Your task to perform on an android device: change keyboard looks Image 0: 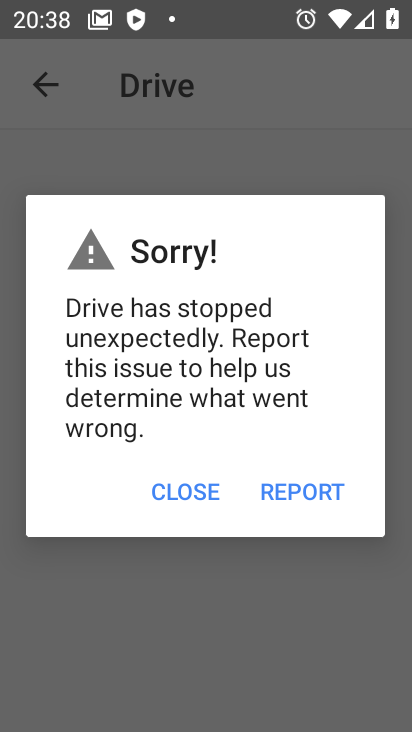
Step 0: press home button
Your task to perform on an android device: change keyboard looks Image 1: 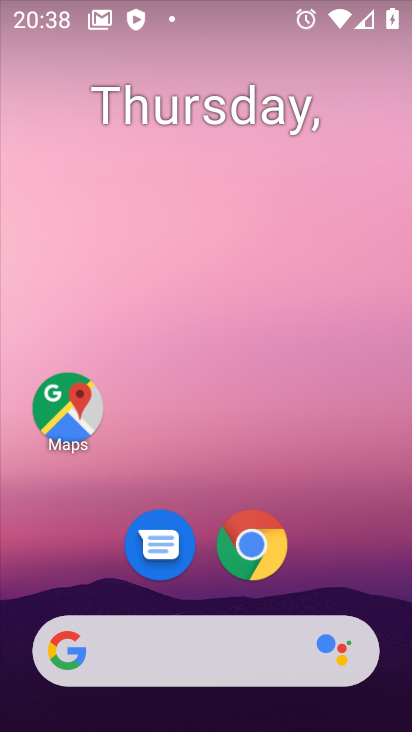
Step 1: drag from (197, 490) to (219, 41)
Your task to perform on an android device: change keyboard looks Image 2: 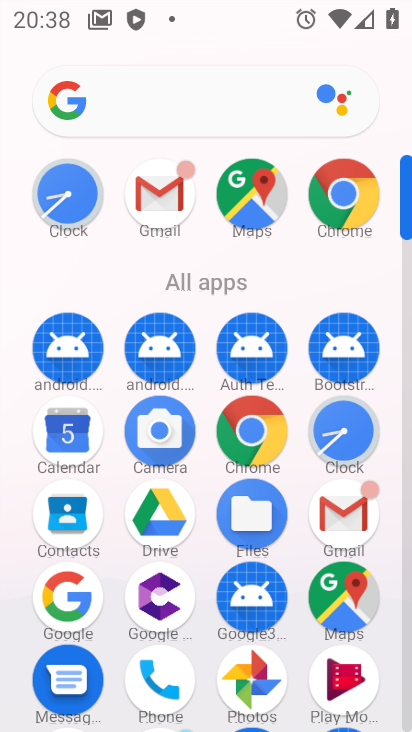
Step 2: drag from (216, 659) to (245, 292)
Your task to perform on an android device: change keyboard looks Image 3: 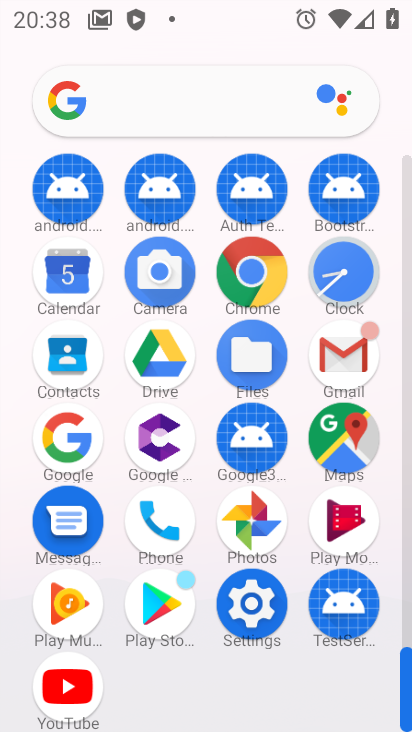
Step 3: click (246, 592)
Your task to perform on an android device: change keyboard looks Image 4: 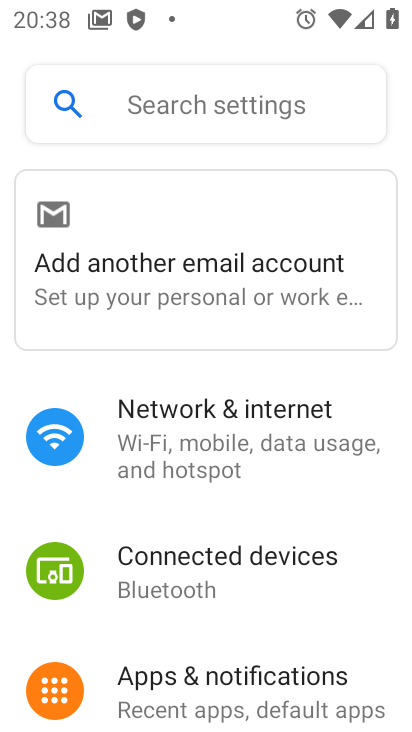
Step 4: drag from (134, 685) to (220, 288)
Your task to perform on an android device: change keyboard looks Image 5: 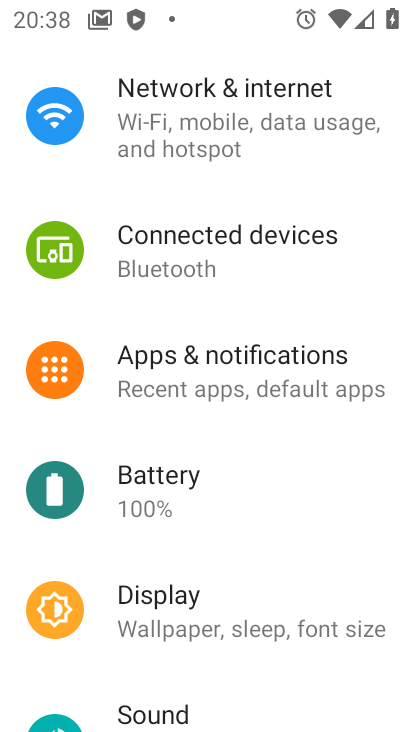
Step 5: drag from (150, 654) to (303, 13)
Your task to perform on an android device: change keyboard looks Image 6: 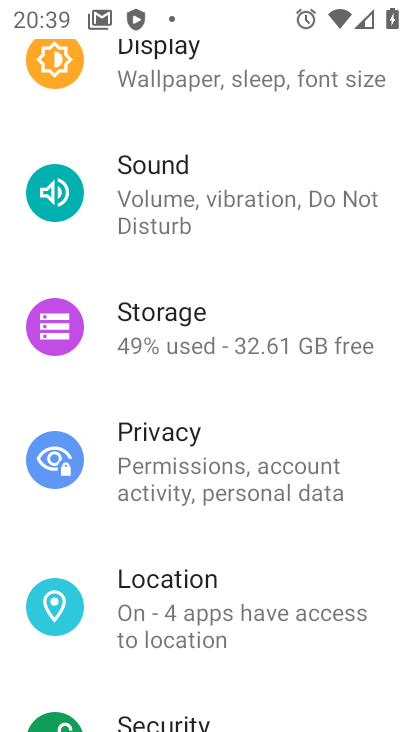
Step 6: drag from (96, 672) to (197, 38)
Your task to perform on an android device: change keyboard looks Image 7: 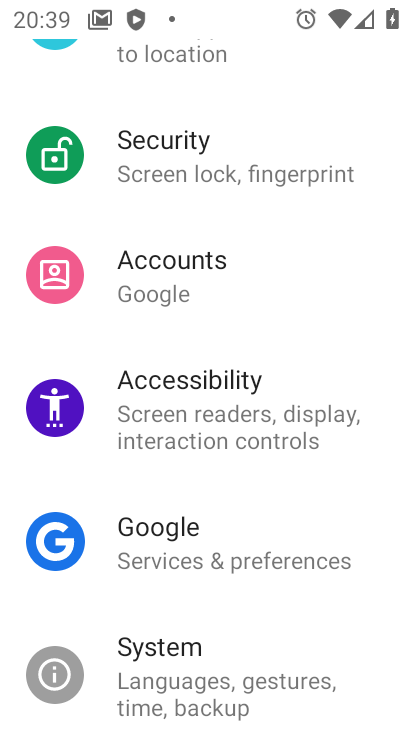
Step 7: drag from (24, 546) to (119, 193)
Your task to perform on an android device: change keyboard looks Image 8: 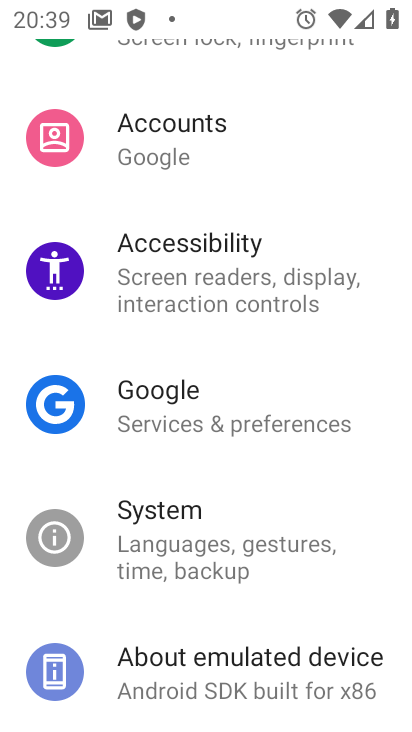
Step 8: click (74, 552)
Your task to perform on an android device: change keyboard looks Image 9: 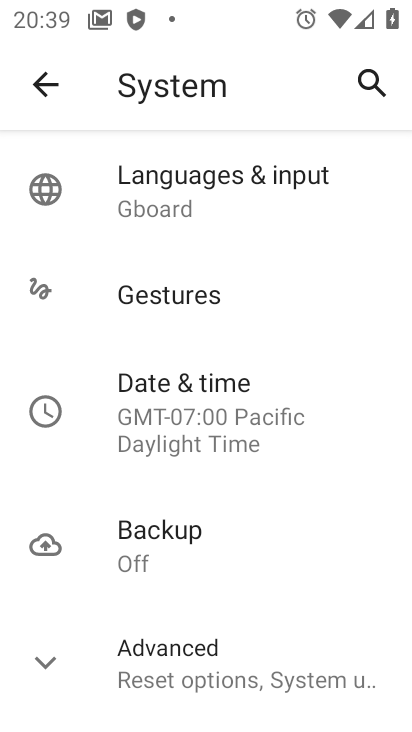
Step 9: click (200, 186)
Your task to perform on an android device: change keyboard looks Image 10: 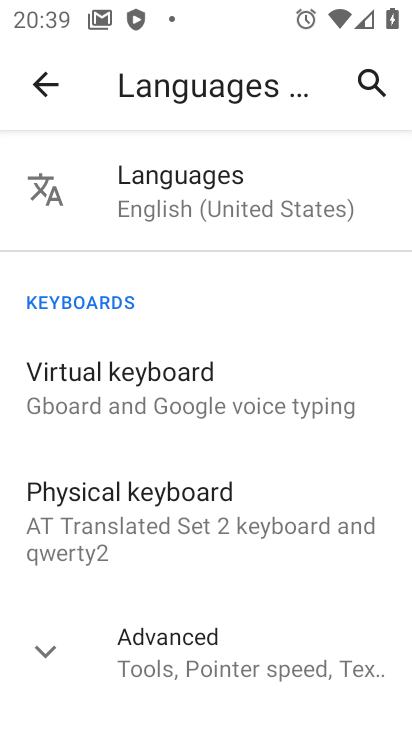
Step 10: click (189, 368)
Your task to perform on an android device: change keyboard looks Image 11: 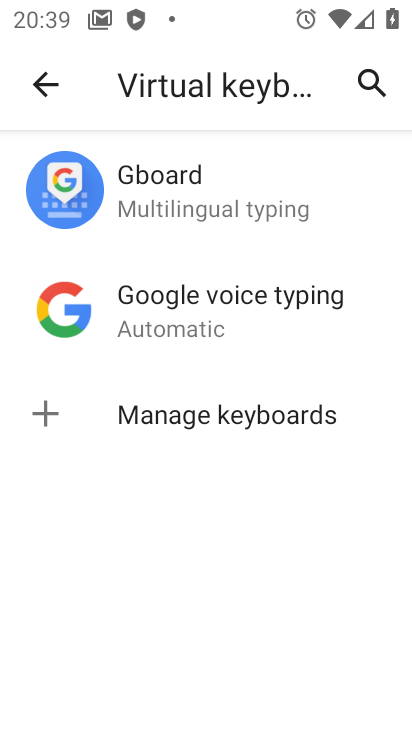
Step 11: click (219, 177)
Your task to perform on an android device: change keyboard looks Image 12: 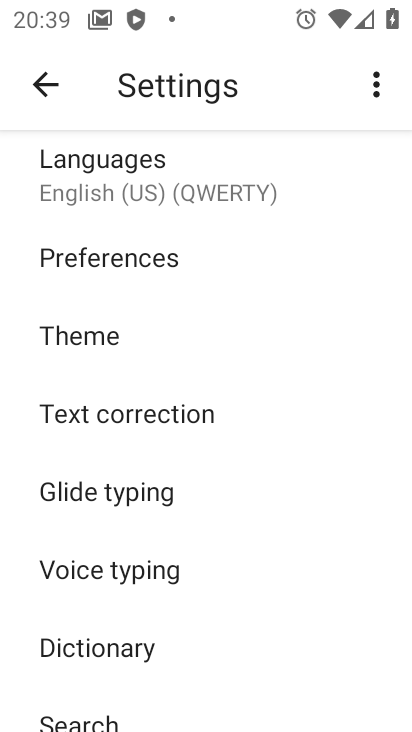
Step 12: click (146, 169)
Your task to perform on an android device: change keyboard looks Image 13: 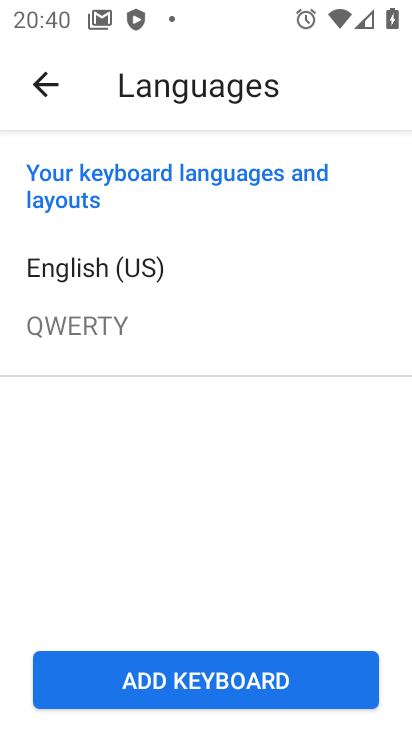
Step 13: click (142, 312)
Your task to perform on an android device: change keyboard looks Image 14: 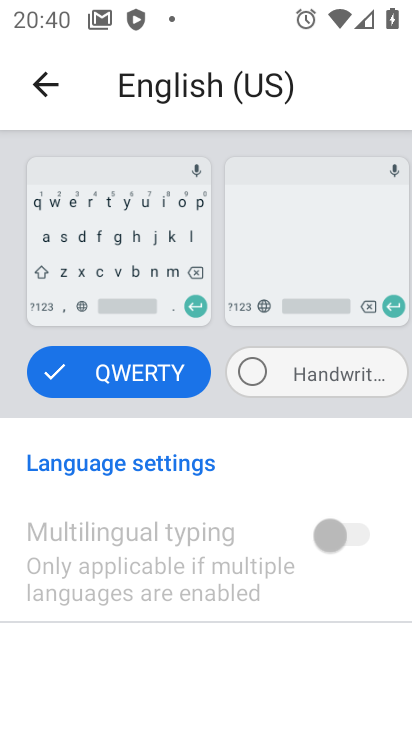
Step 14: click (66, 85)
Your task to perform on an android device: change keyboard looks Image 15: 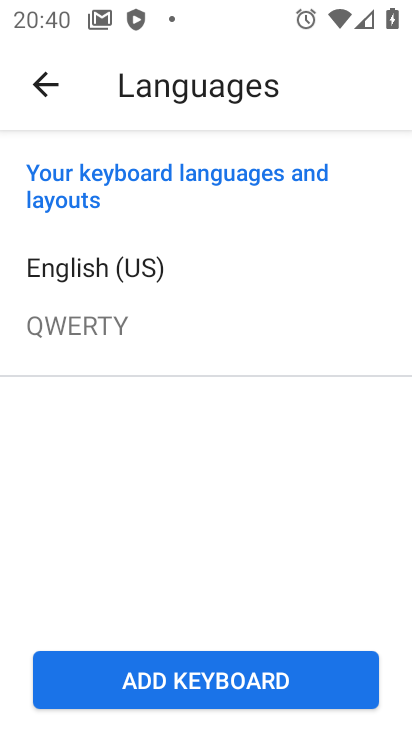
Step 15: click (66, 85)
Your task to perform on an android device: change keyboard looks Image 16: 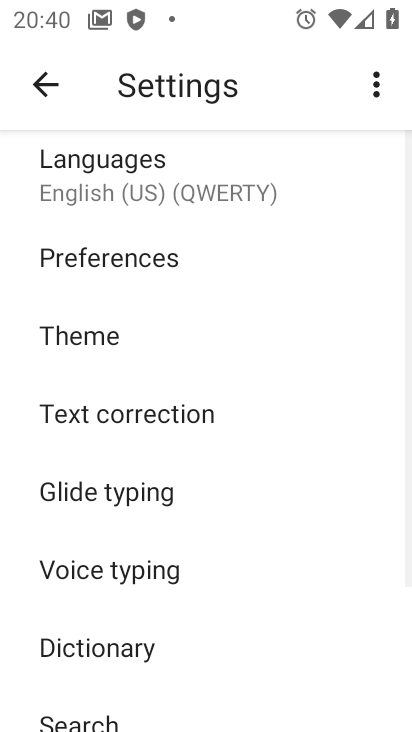
Step 16: click (116, 345)
Your task to perform on an android device: change keyboard looks Image 17: 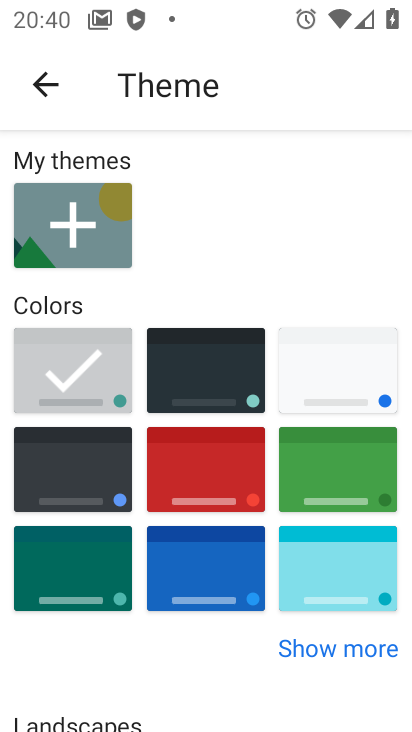
Step 17: click (223, 480)
Your task to perform on an android device: change keyboard looks Image 18: 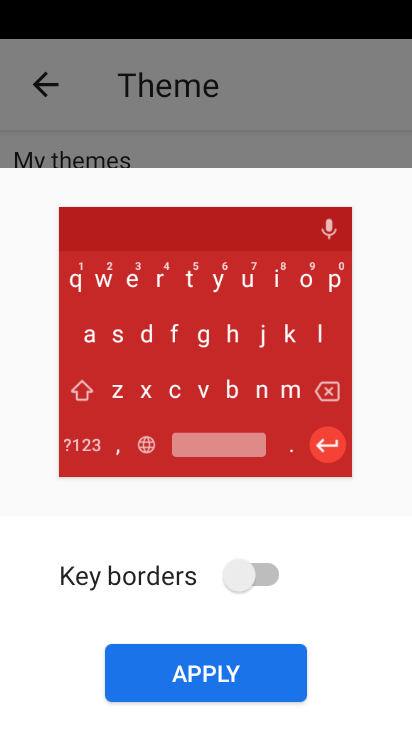
Step 18: click (267, 571)
Your task to perform on an android device: change keyboard looks Image 19: 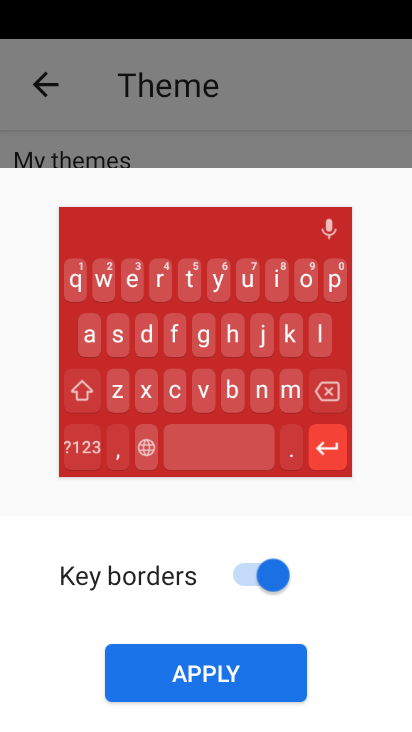
Step 19: click (275, 684)
Your task to perform on an android device: change keyboard looks Image 20: 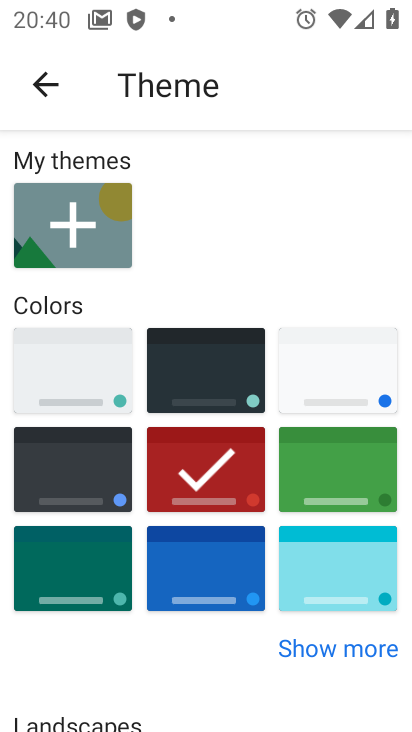
Step 20: task complete